Your task to perform on an android device: open a bookmark in the chrome app Image 0: 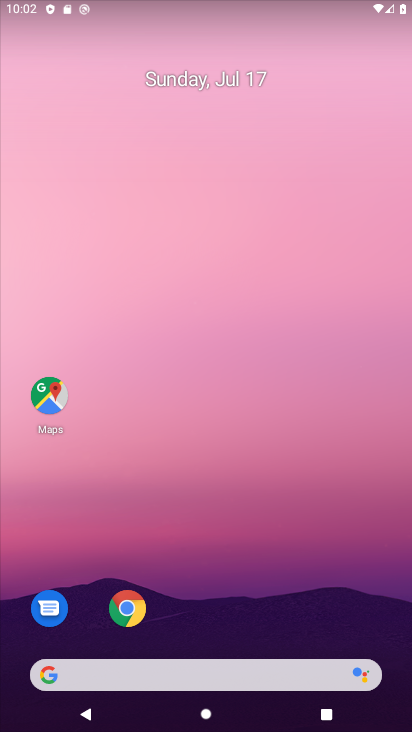
Step 0: drag from (244, 614) to (227, 127)
Your task to perform on an android device: open a bookmark in the chrome app Image 1: 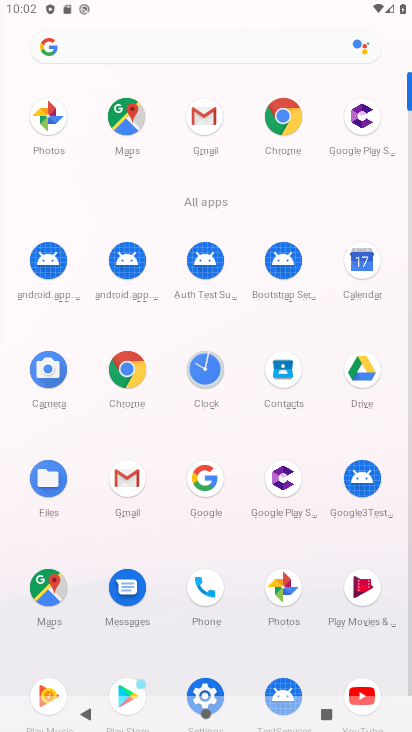
Step 1: click (125, 370)
Your task to perform on an android device: open a bookmark in the chrome app Image 2: 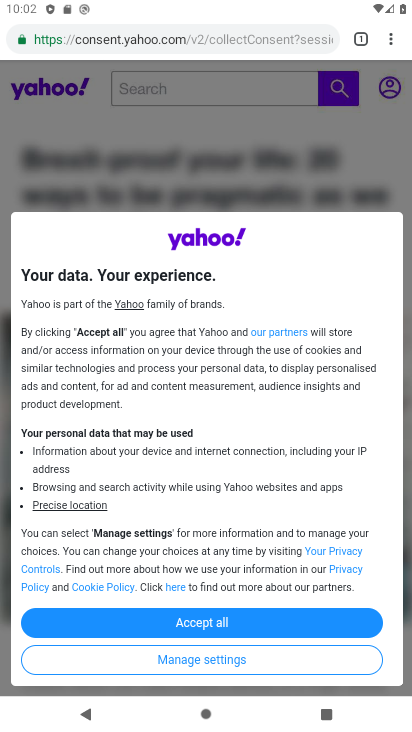
Step 2: click (387, 37)
Your task to perform on an android device: open a bookmark in the chrome app Image 3: 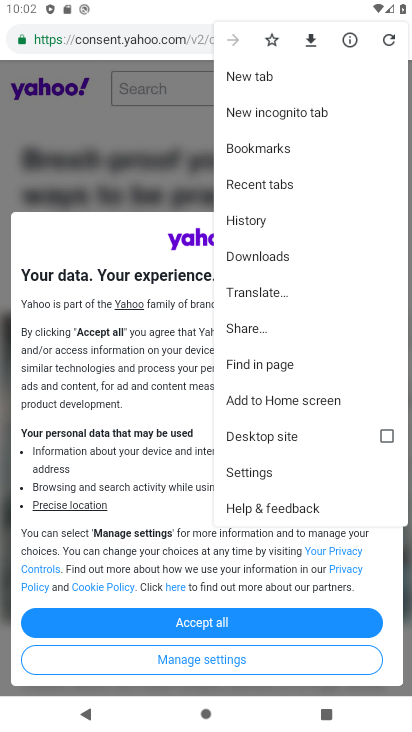
Step 3: click (278, 146)
Your task to perform on an android device: open a bookmark in the chrome app Image 4: 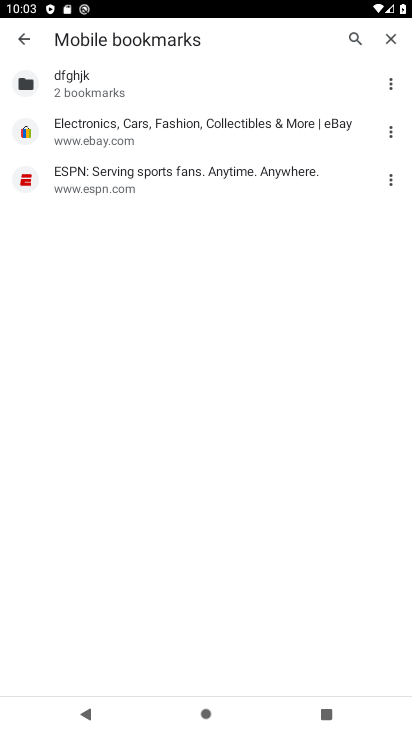
Step 4: click (164, 133)
Your task to perform on an android device: open a bookmark in the chrome app Image 5: 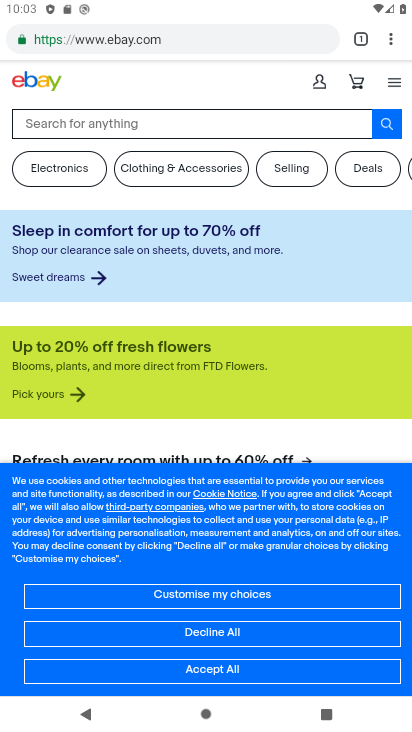
Step 5: task complete